Your task to perform on an android device: turn notification dots off Image 0: 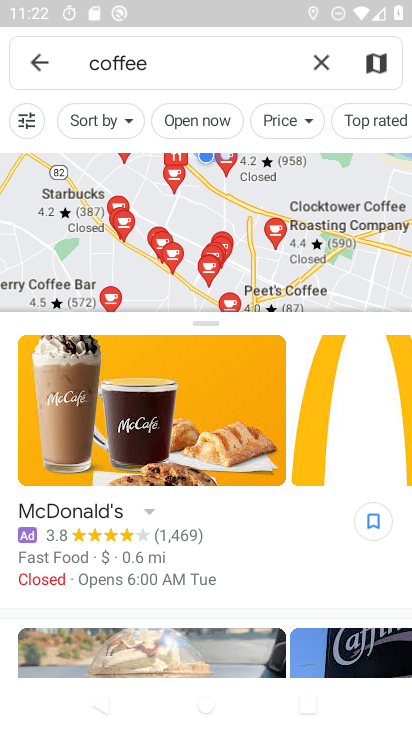
Step 0: press home button
Your task to perform on an android device: turn notification dots off Image 1: 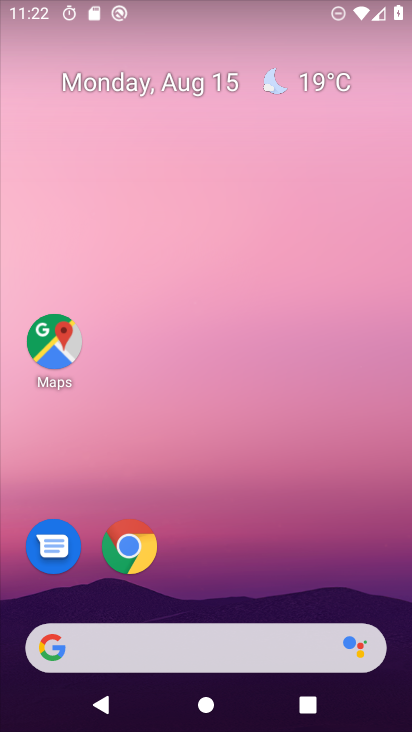
Step 1: drag from (205, 359) to (183, 12)
Your task to perform on an android device: turn notification dots off Image 2: 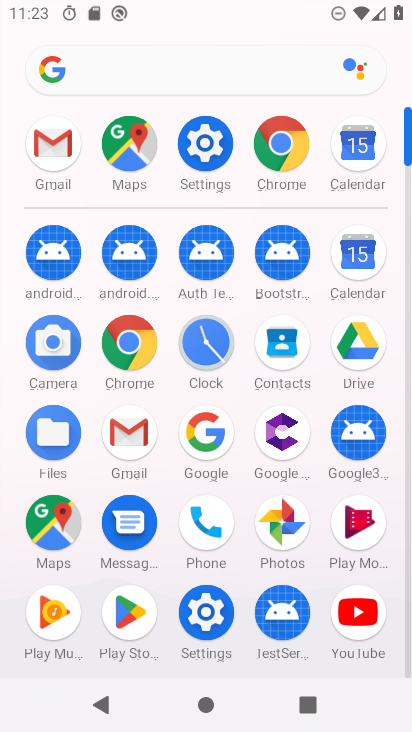
Step 2: click (208, 147)
Your task to perform on an android device: turn notification dots off Image 3: 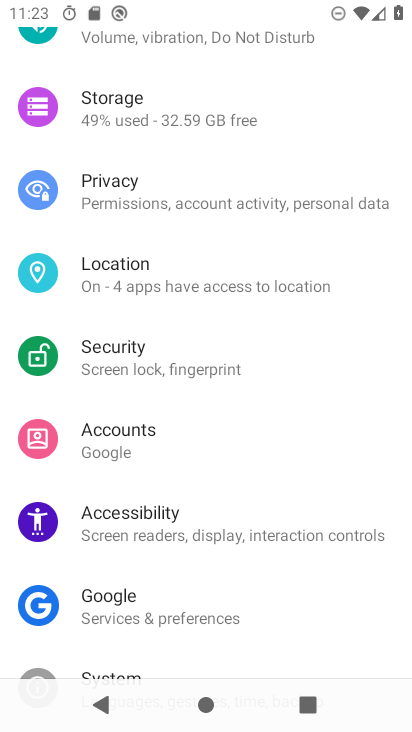
Step 3: drag from (153, 180) to (144, 646)
Your task to perform on an android device: turn notification dots off Image 4: 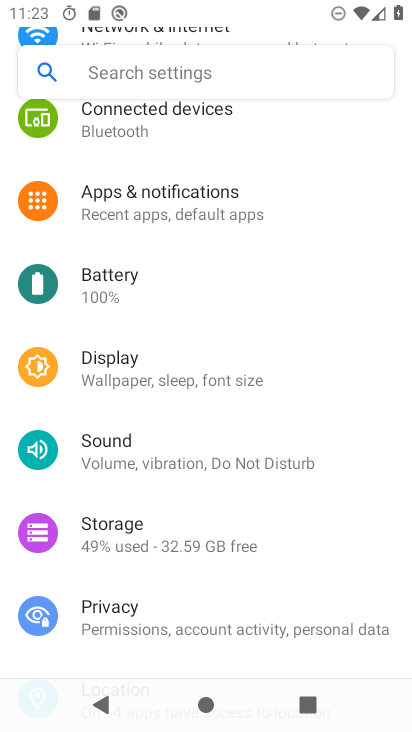
Step 4: click (163, 211)
Your task to perform on an android device: turn notification dots off Image 5: 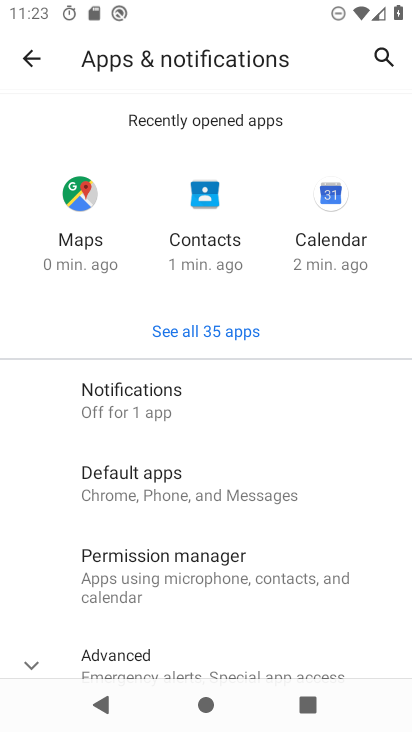
Step 5: click (134, 398)
Your task to perform on an android device: turn notification dots off Image 6: 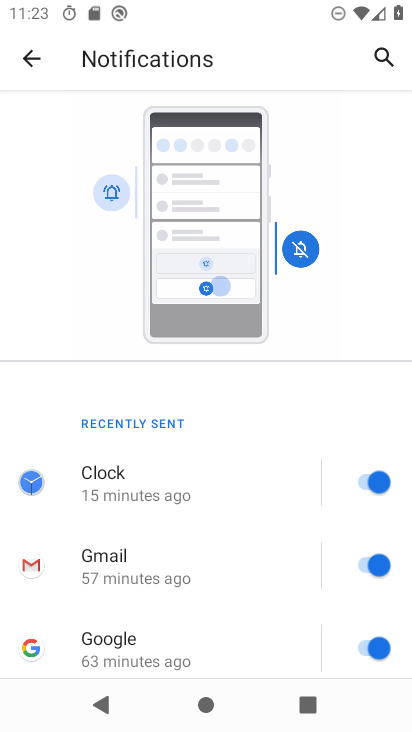
Step 6: drag from (153, 645) to (163, 282)
Your task to perform on an android device: turn notification dots off Image 7: 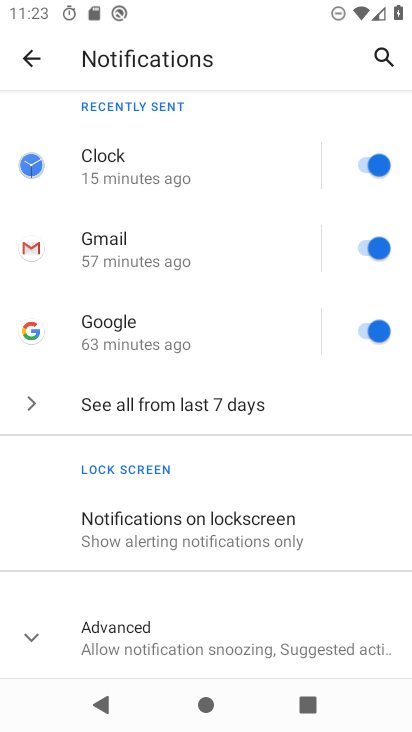
Step 7: drag from (219, 628) to (206, 342)
Your task to perform on an android device: turn notification dots off Image 8: 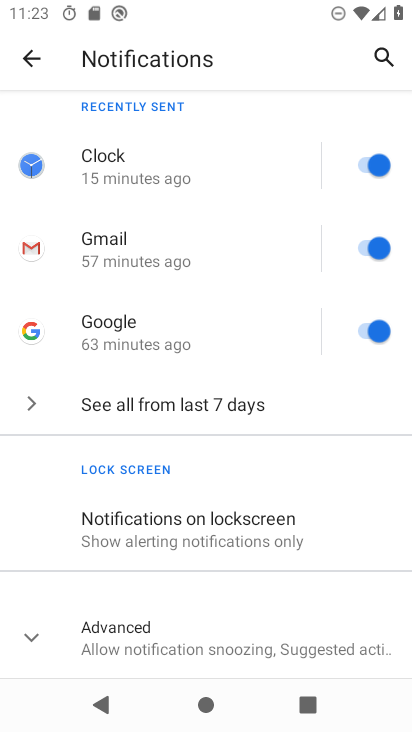
Step 8: click (184, 652)
Your task to perform on an android device: turn notification dots off Image 9: 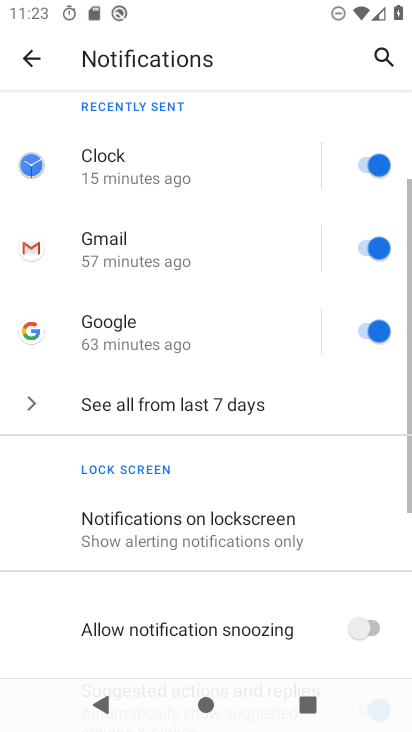
Step 9: drag from (241, 631) to (223, 308)
Your task to perform on an android device: turn notification dots off Image 10: 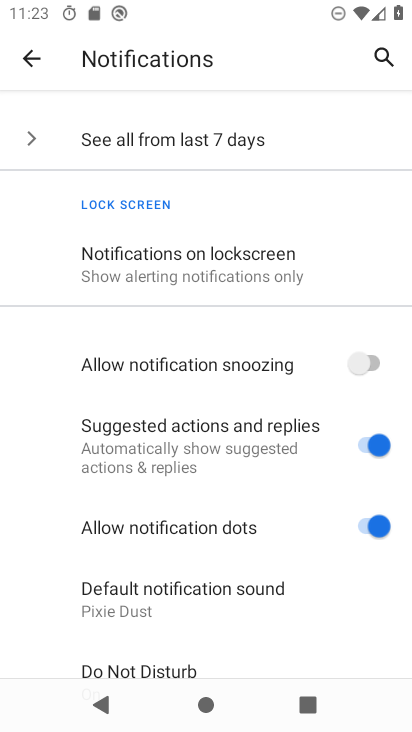
Step 10: click (363, 525)
Your task to perform on an android device: turn notification dots off Image 11: 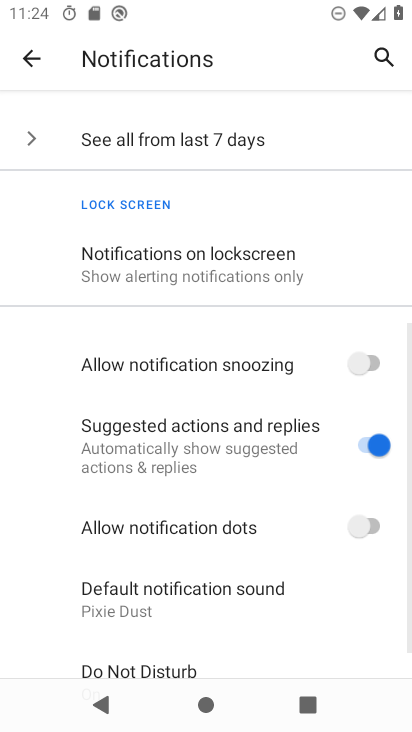
Step 11: task complete